Your task to perform on an android device: turn off location Image 0: 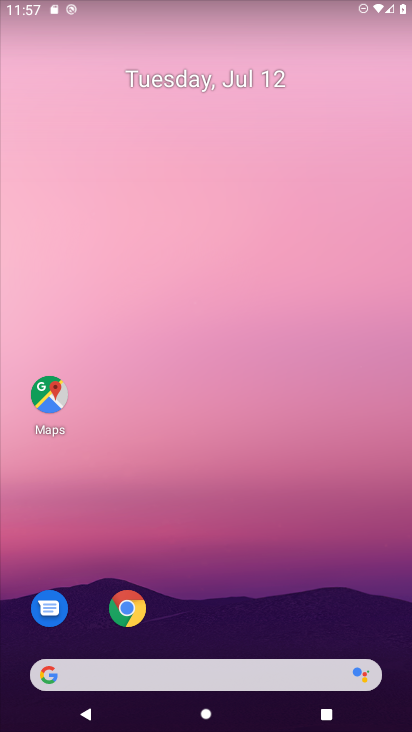
Step 0: drag from (243, 644) to (243, 113)
Your task to perform on an android device: turn off location Image 1: 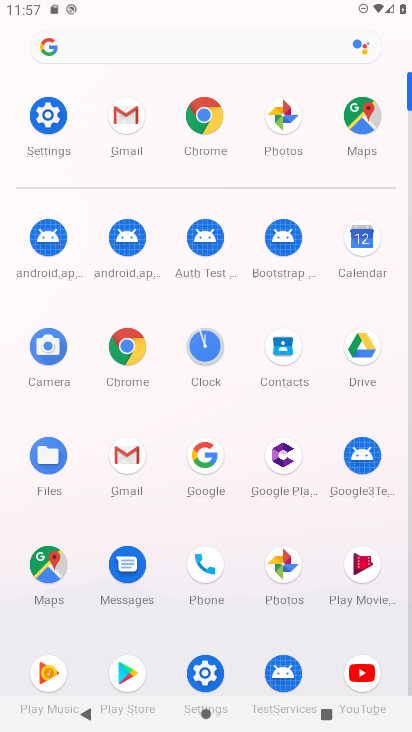
Step 1: click (39, 122)
Your task to perform on an android device: turn off location Image 2: 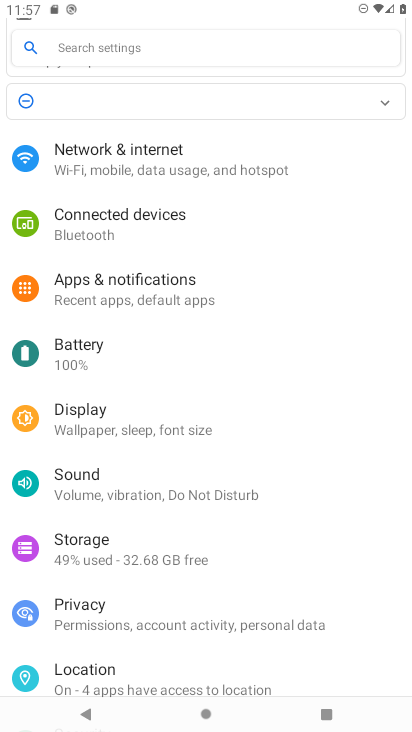
Step 2: click (100, 670)
Your task to perform on an android device: turn off location Image 3: 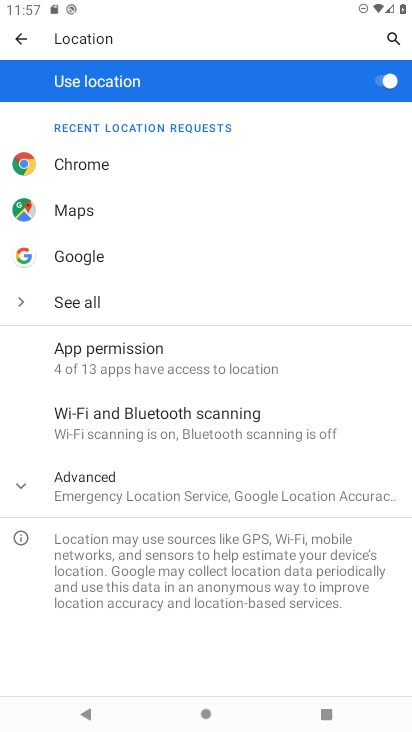
Step 3: click (378, 78)
Your task to perform on an android device: turn off location Image 4: 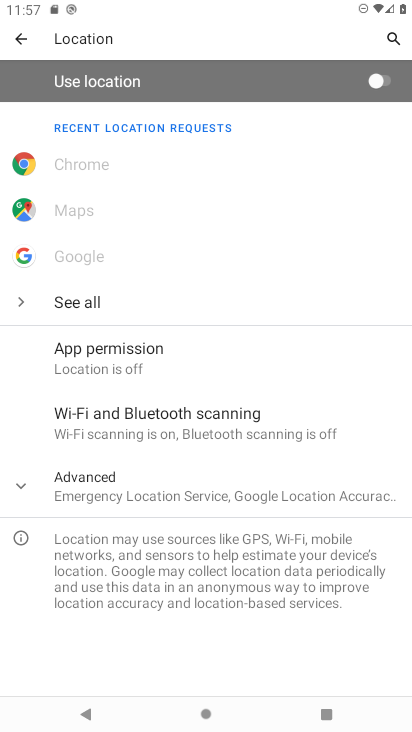
Step 4: task complete